Your task to perform on an android device: What is the news today? Image 0: 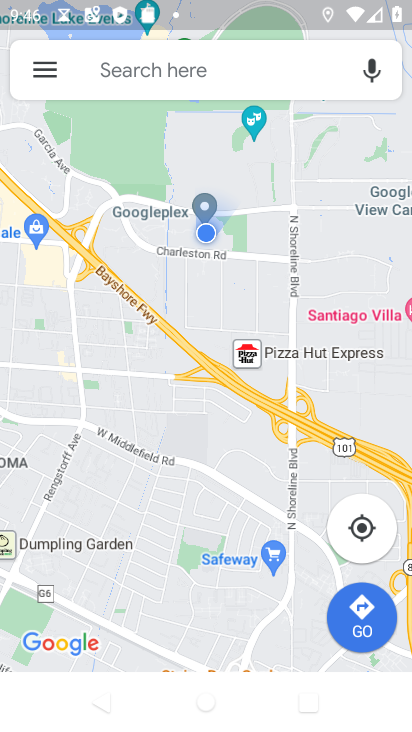
Step 0: press home button
Your task to perform on an android device: What is the news today? Image 1: 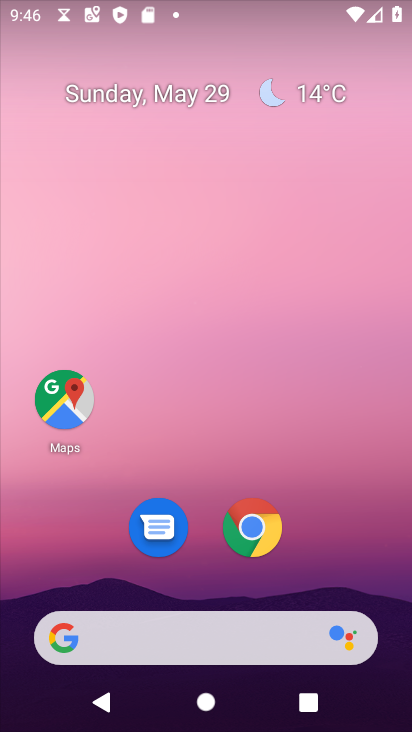
Step 1: click (67, 649)
Your task to perform on an android device: What is the news today? Image 2: 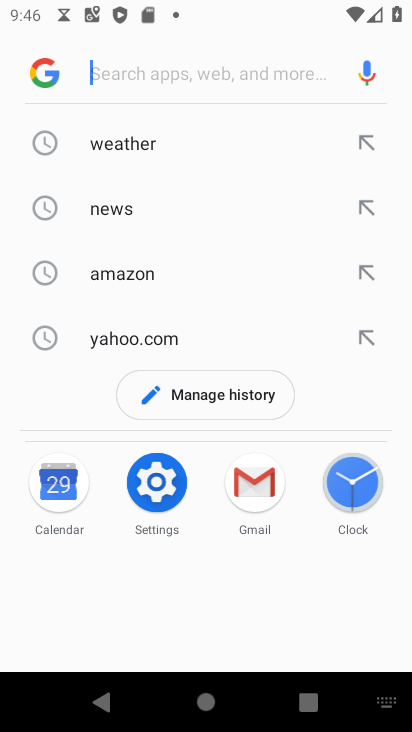
Step 2: click (126, 213)
Your task to perform on an android device: What is the news today? Image 3: 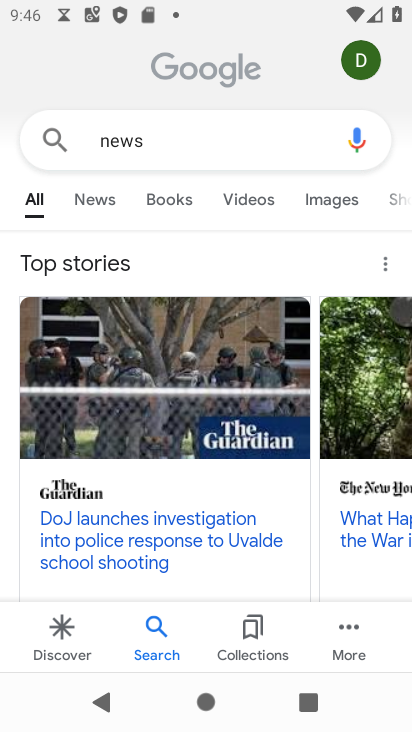
Step 3: click (90, 203)
Your task to perform on an android device: What is the news today? Image 4: 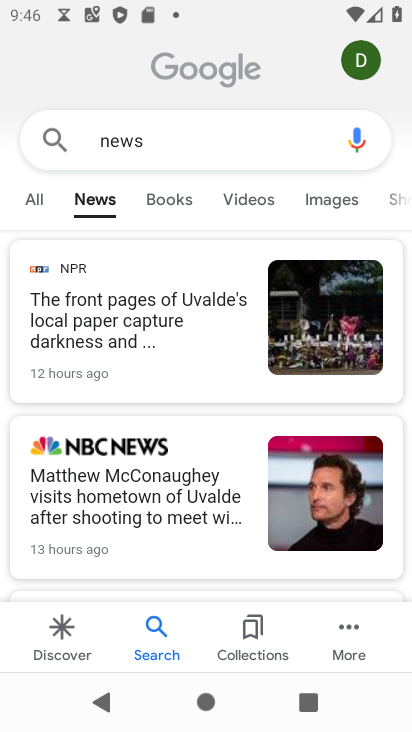
Step 4: task complete